Your task to perform on an android device: Go to Android settings Image 0: 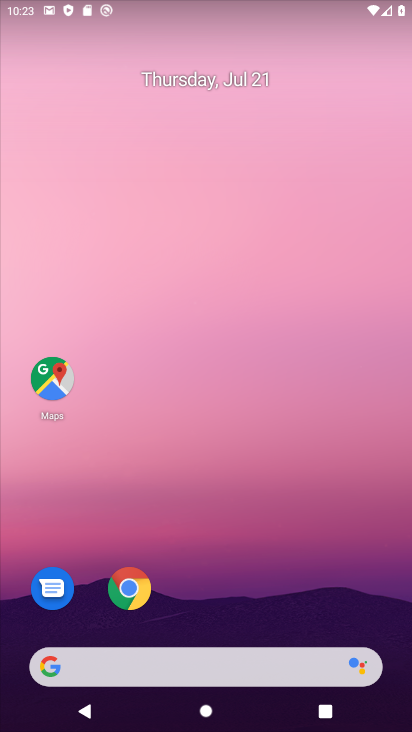
Step 0: drag from (222, 607) to (274, 385)
Your task to perform on an android device: Go to Android settings Image 1: 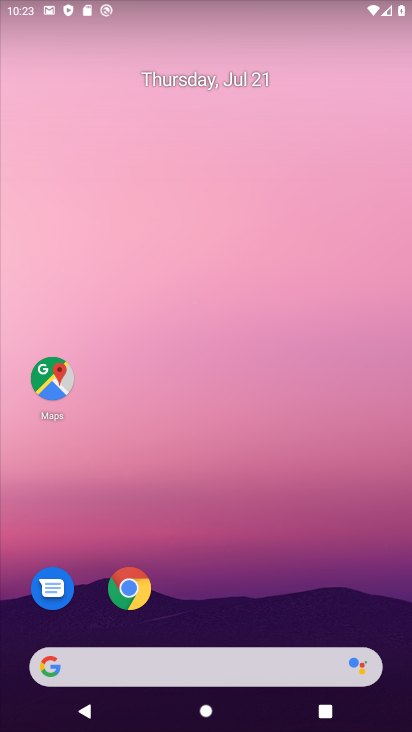
Step 1: drag from (220, 523) to (261, 303)
Your task to perform on an android device: Go to Android settings Image 2: 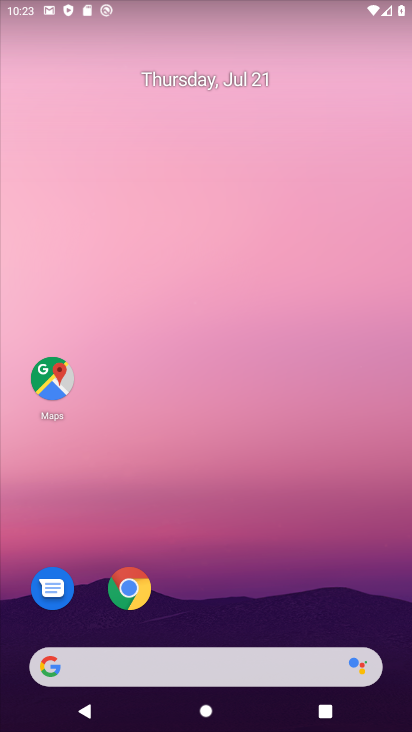
Step 2: drag from (185, 535) to (251, 258)
Your task to perform on an android device: Go to Android settings Image 3: 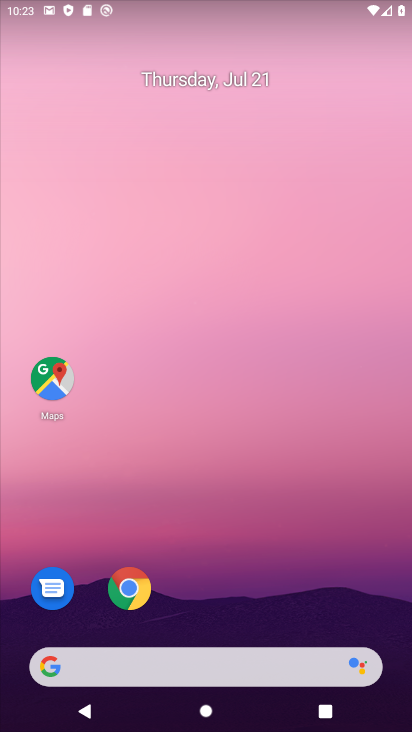
Step 3: drag from (187, 533) to (238, 159)
Your task to perform on an android device: Go to Android settings Image 4: 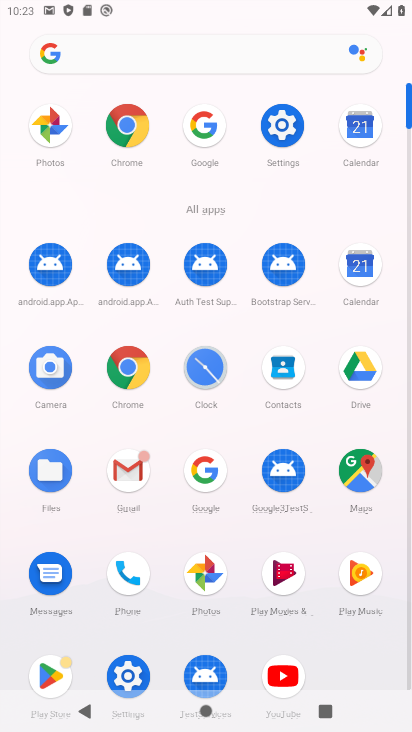
Step 4: click (291, 120)
Your task to perform on an android device: Go to Android settings Image 5: 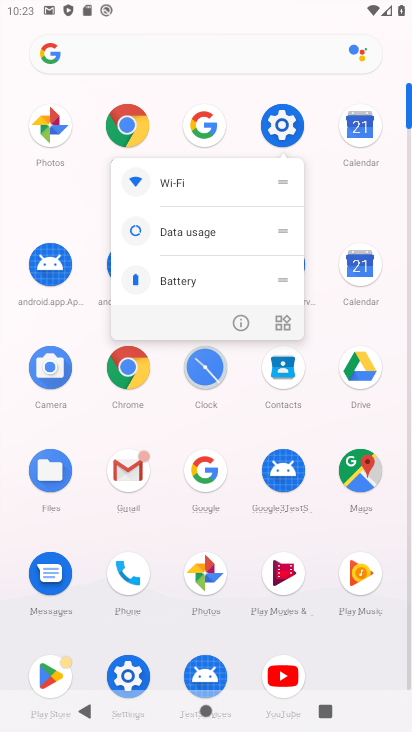
Step 5: click (244, 320)
Your task to perform on an android device: Go to Android settings Image 6: 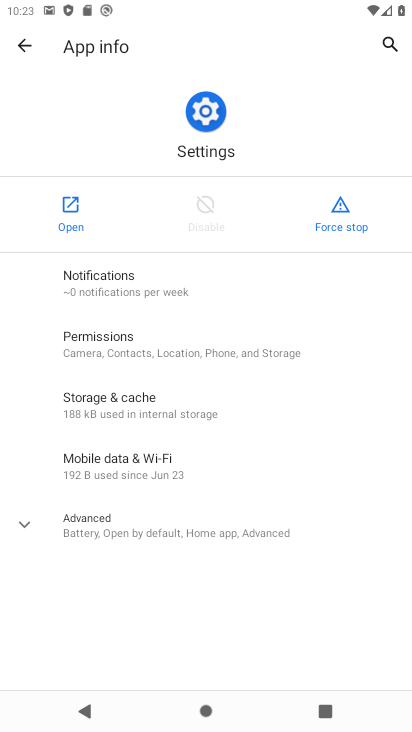
Step 6: click (70, 205)
Your task to perform on an android device: Go to Android settings Image 7: 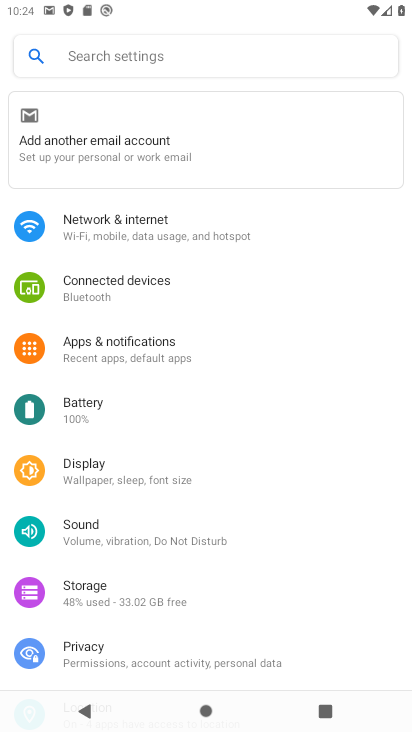
Step 7: drag from (127, 601) to (174, 73)
Your task to perform on an android device: Go to Android settings Image 8: 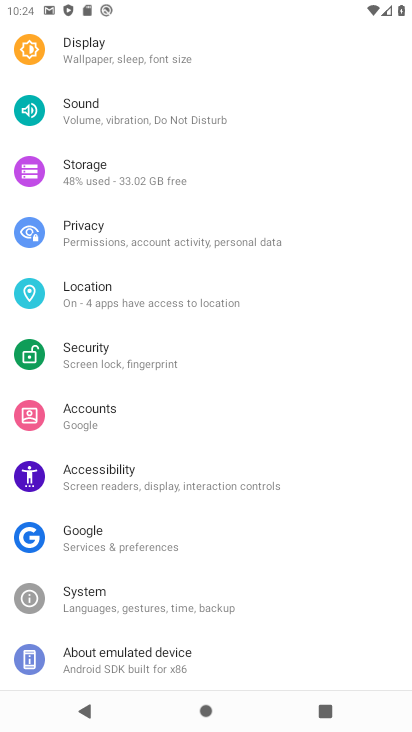
Step 8: click (103, 673)
Your task to perform on an android device: Go to Android settings Image 9: 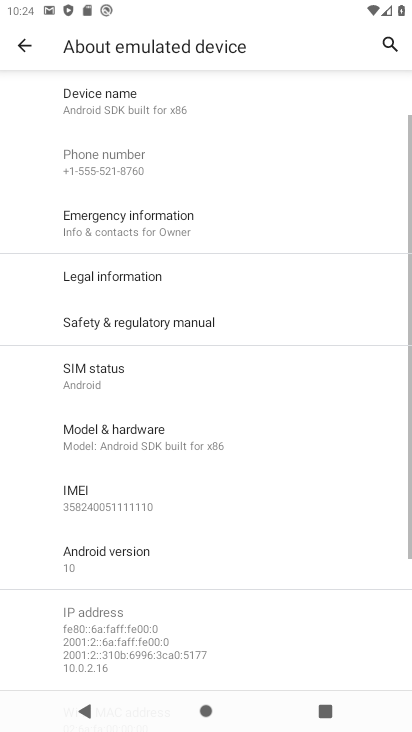
Step 9: click (84, 561)
Your task to perform on an android device: Go to Android settings Image 10: 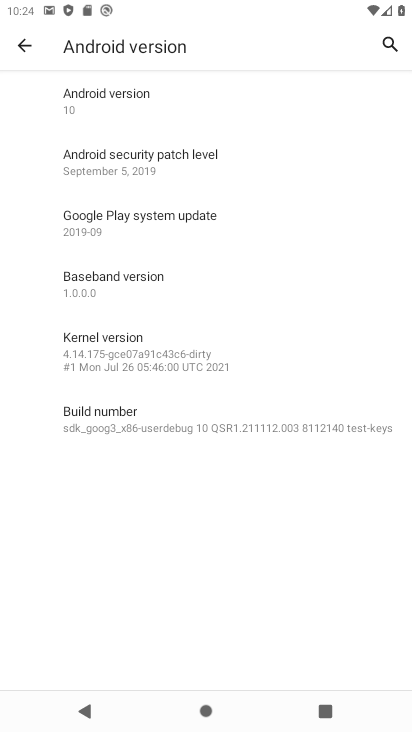
Step 10: click (114, 112)
Your task to perform on an android device: Go to Android settings Image 11: 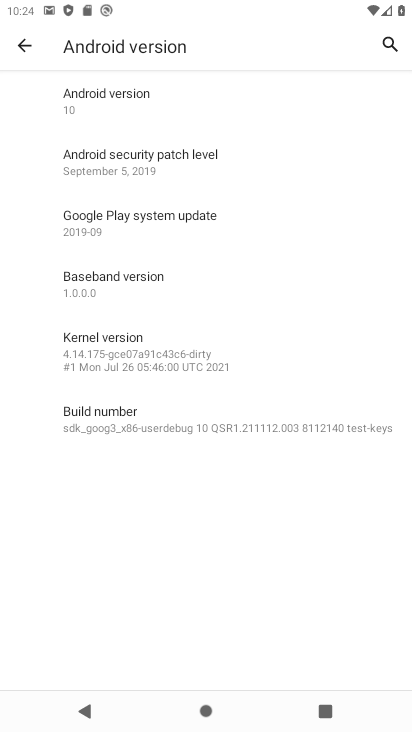
Step 11: task complete